Your task to perform on an android device: Go to Yahoo.com Image 0: 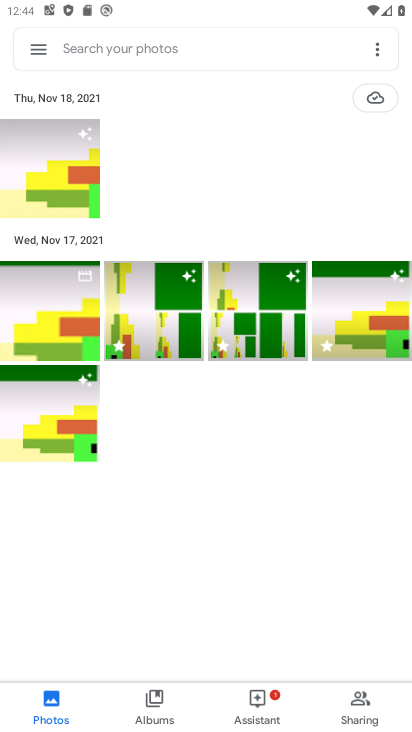
Step 0: press home button
Your task to perform on an android device: Go to Yahoo.com Image 1: 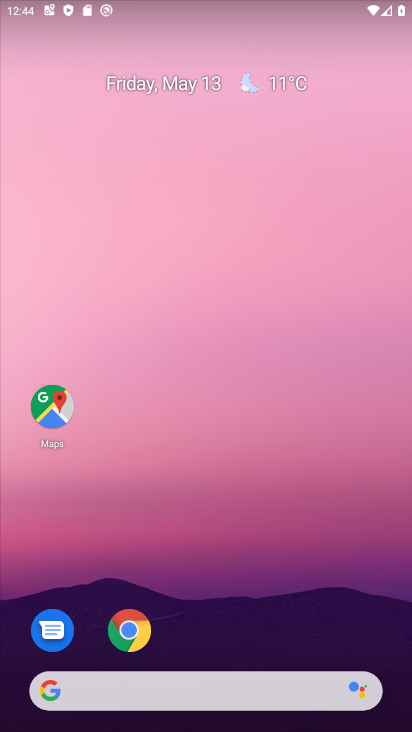
Step 1: click (133, 634)
Your task to perform on an android device: Go to Yahoo.com Image 2: 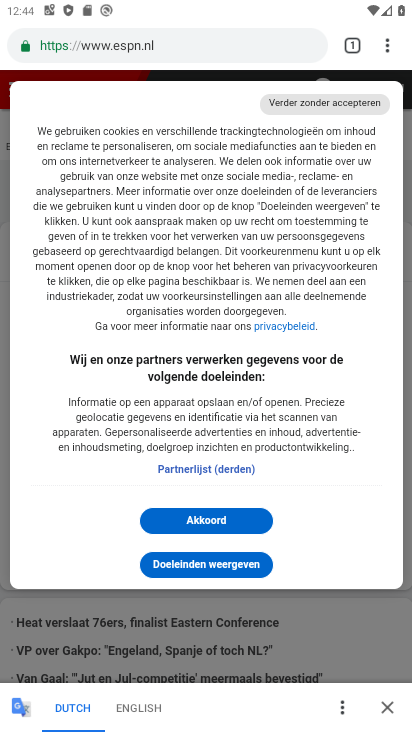
Step 2: click (143, 47)
Your task to perform on an android device: Go to Yahoo.com Image 3: 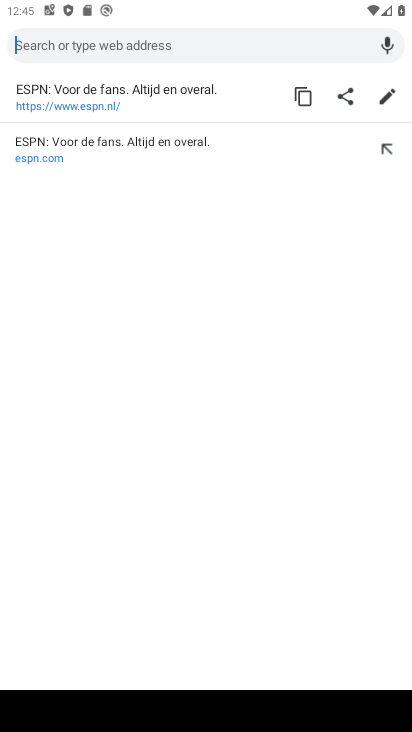
Step 3: type "yahoo.com"
Your task to perform on an android device: Go to Yahoo.com Image 4: 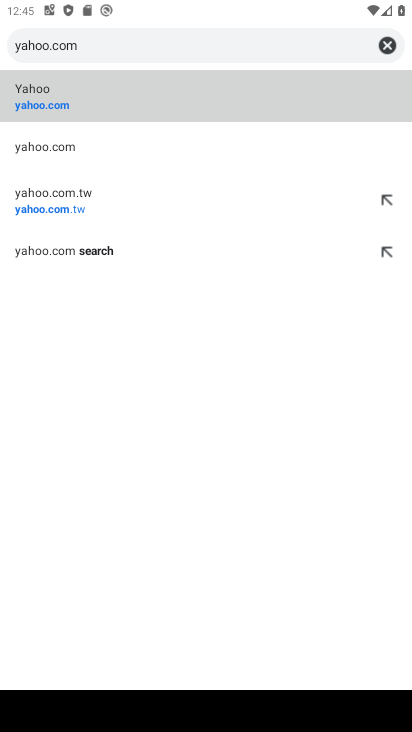
Step 4: click (38, 111)
Your task to perform on an android device: Go to Yahoo.com Image 5: 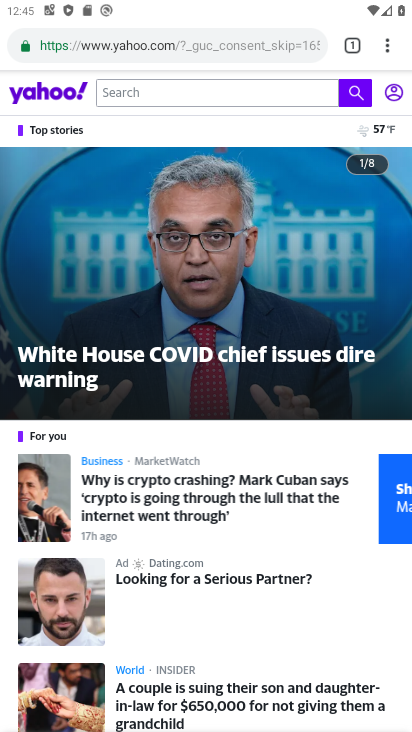
Step 5: task complete